Your task to perform on an android device: When is my next meeting? Image 0: 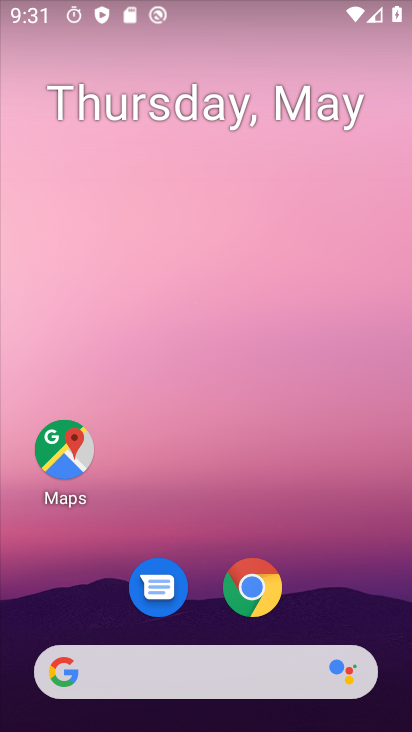
Step 0: drag from (364, 595) to (344, 37)
Your task to perform on an android device: When is my next meeting? Image 1: 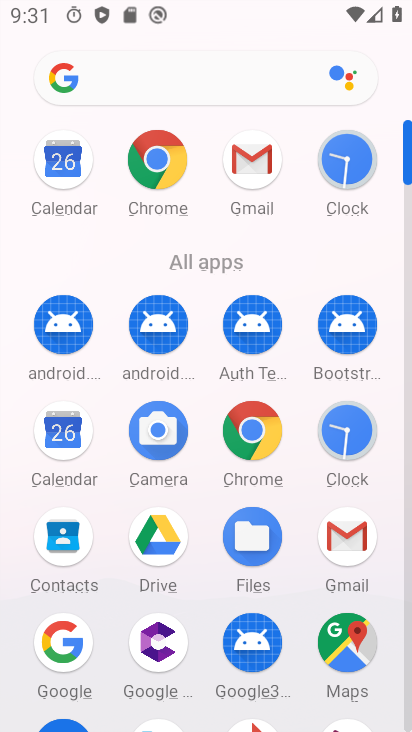
Step 1: click (63, 169)
Your task to perform on an android device: When is my next meeting? Image 2: 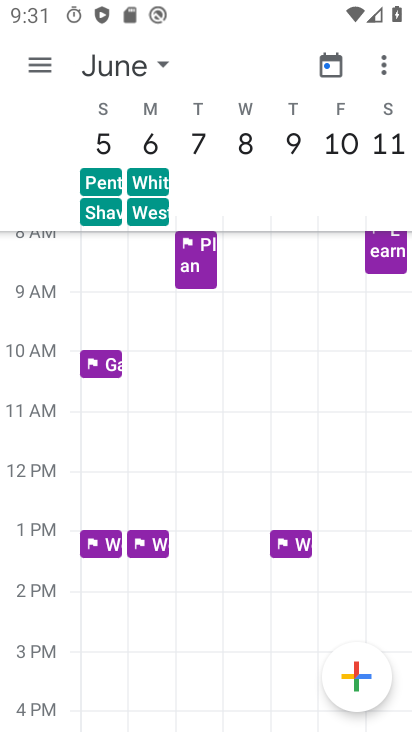
Step 2: click (41, 67)
Your task to perform on an android device: When is my next meeting? Image 3: 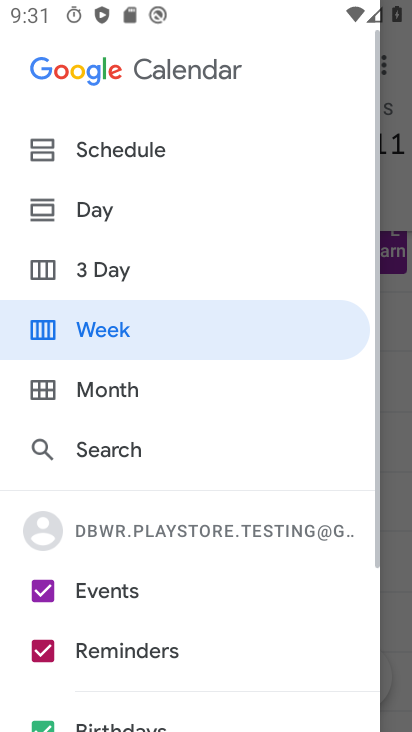
Step 3: click (96, 447)
Your task to perform on an android device: When is my next meeting? Image 4: 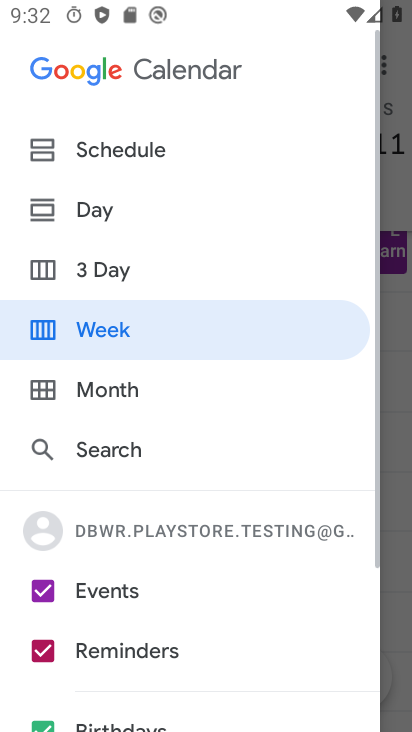
Step 4: click (72, 456)
Your task to perform on an android device: When is my next meeting? Image 5: 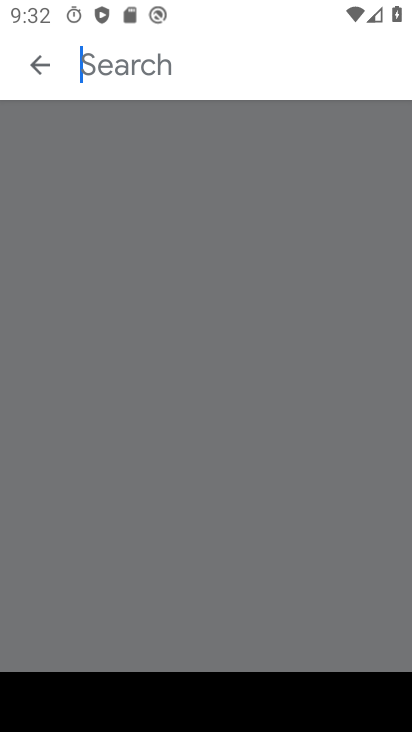
Step 5: click (114, 64)
Your task to perform on an android device: When is my next meeting? Image 6: 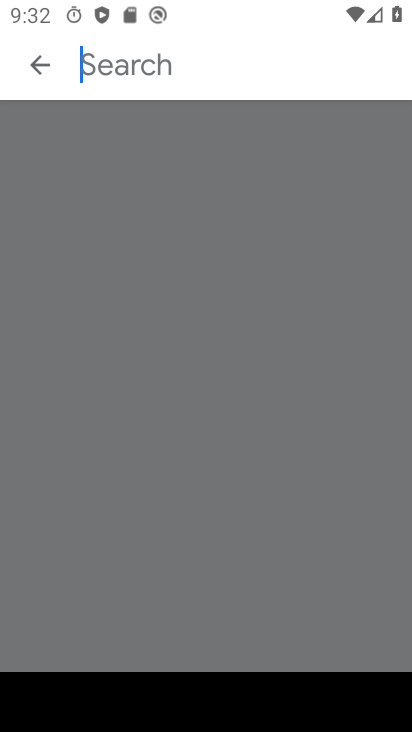
Step 6: type "meet"
Your task to perform on an android device: When is my next meeting? Image 7: 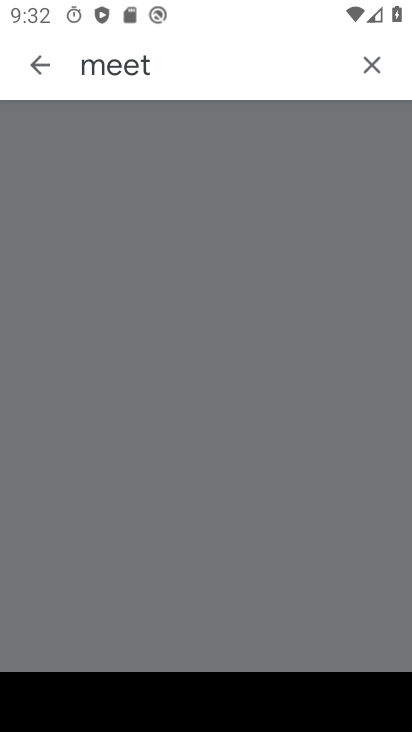
Step 7: type "ing"
Your task to perform on an android device: When is my next meeting? Image 8: 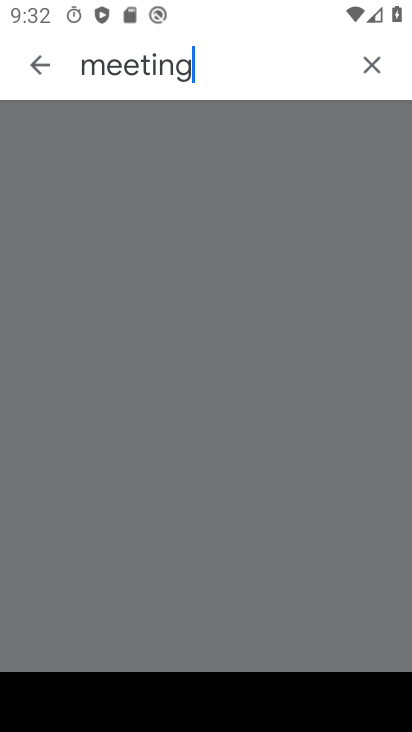
Step 8: click (244, 84)
Your task to perform on an android device: When is my next meeting? Image 9: 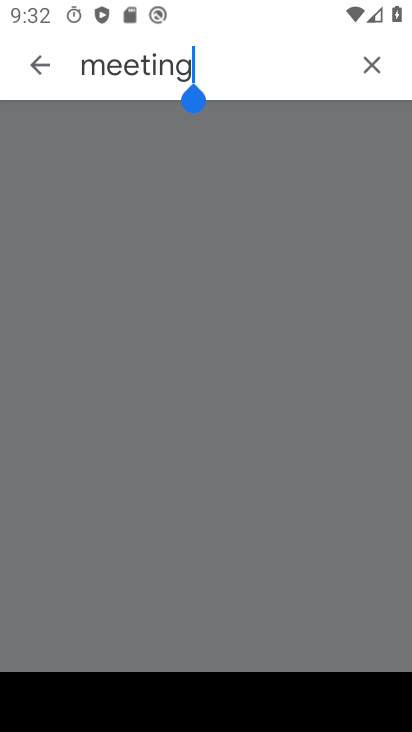
Step 9: click (364, 67)
Your task to perform on an android device: When is my next meeting? Image 10: 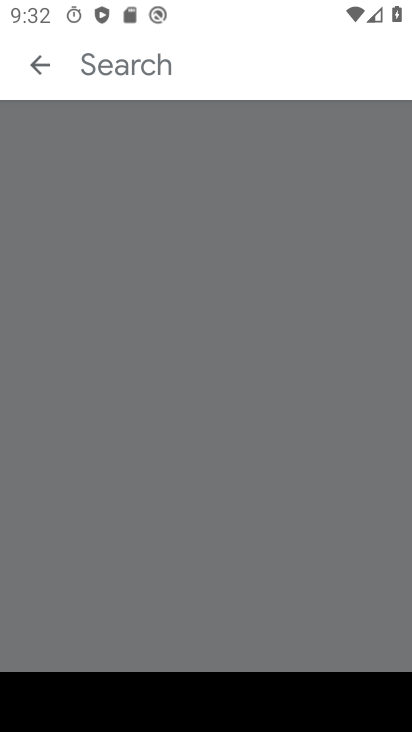
Step 10: click (31, 70)
Your task to perform on an android device: When is my next meeting? Image 11: 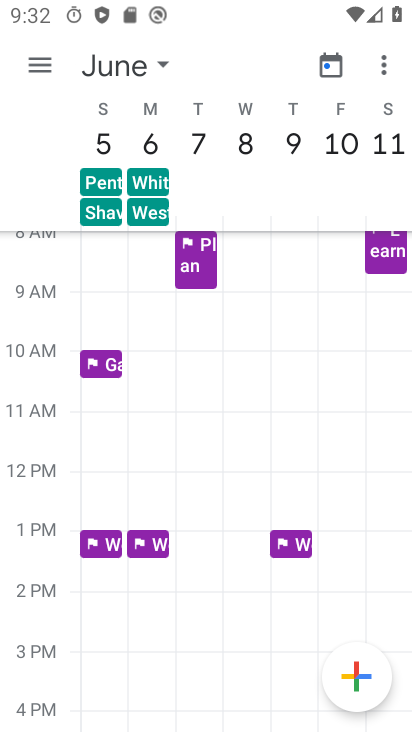
Step 11: click (44, 66)
Your task to perform on an android device: When is my next meeting? Image 12: 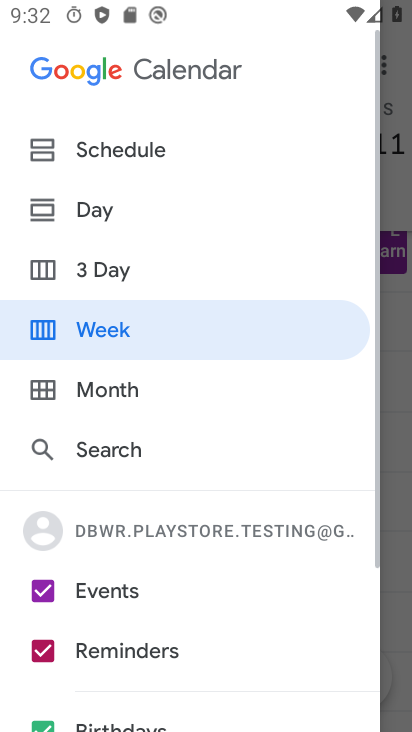
Step 12: click (88, 153)
Your task to perform on an android device: When is my next meeting? Image 13: 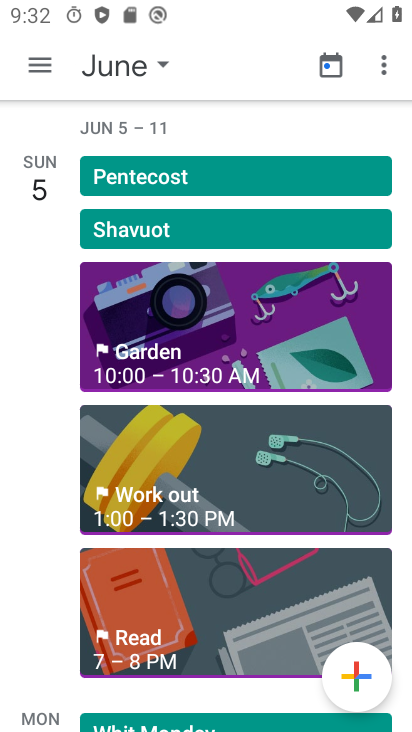
Step 13: click (346, 67)
Your task to perform on an android device: When is my next meeting? Image 14: 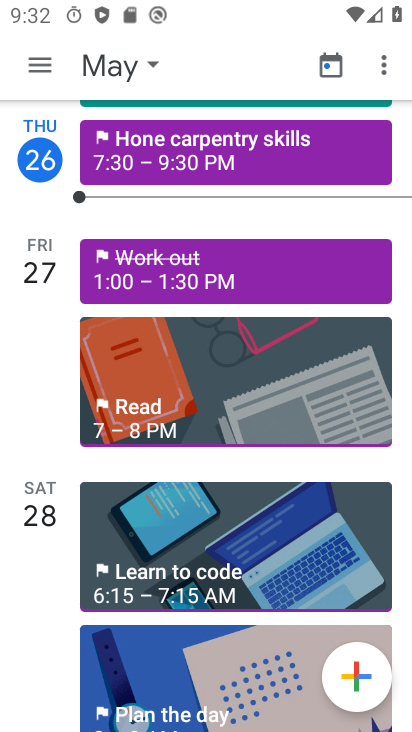
Step 14: drag from (216, 483) to (216, 143)
Your task to perform on an android device: When is my next meeting? Image 15: 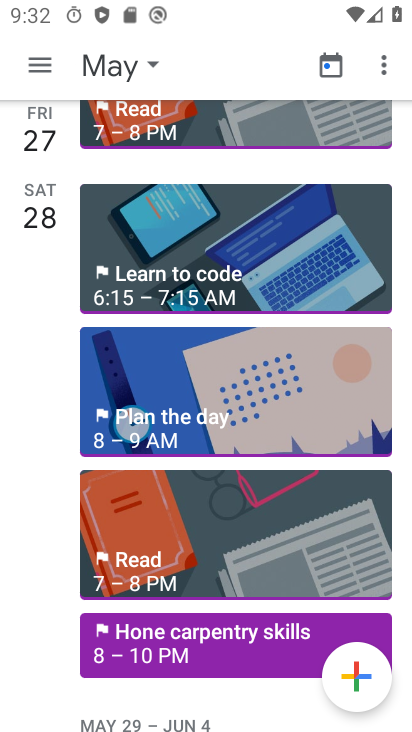
Step 15: drag from (208, 584) to (182, 93)
Your task to perform on an android device: When is my next meeting? Image 16: 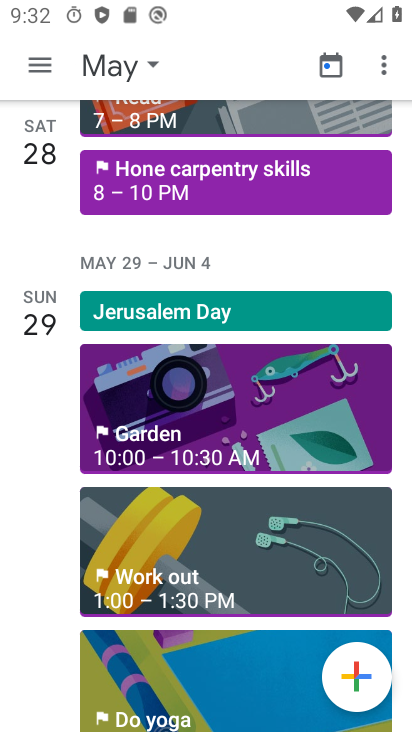
Step 16: drag from (146, 504) to (161, 172)
Your task to perform on an android device: When is my next meeting? Image 17: 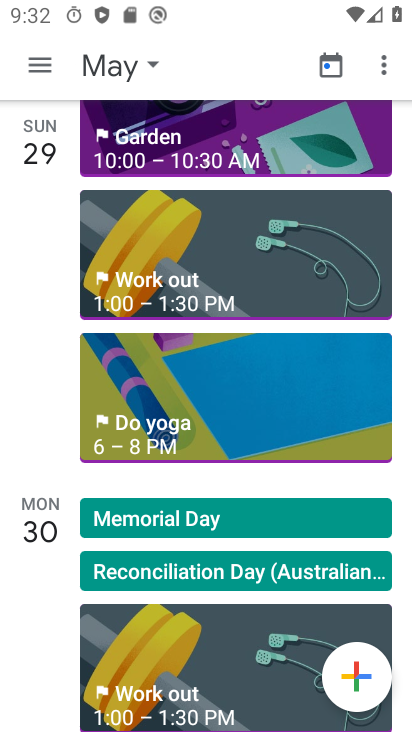
Step 17: drag from (161, 606) to (164, 136)
Your task to perform on an android device: When is my next meeting? Image 18: 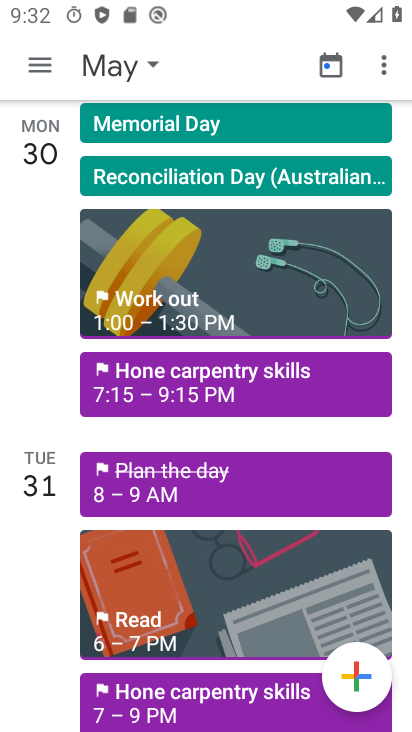
Step 18: drag from (167, 541) to (173, 121)
Your task to perform on an android device: When is my next meeting? Image 19: 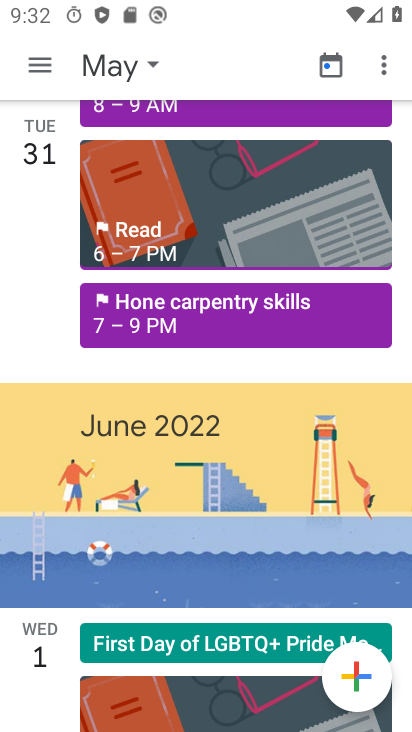
Step 19: drag from (163, 529) to (162, 78)
Your task to perform on an android device: When is my next meeting? Image 20: 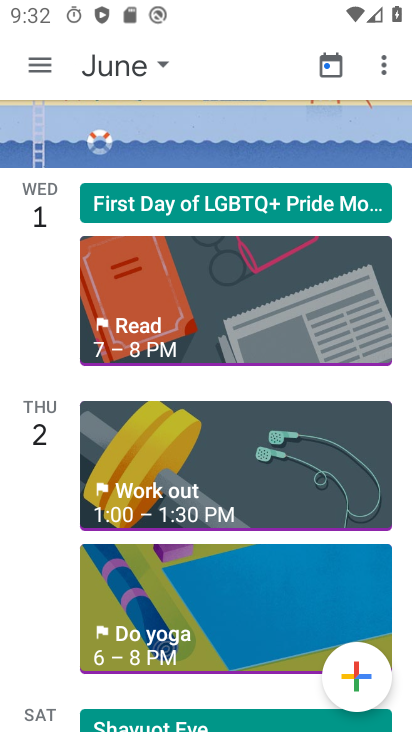
Step 20: drag from (170, 475) to (169, 100)
Your task to perform on an android device: When is my next meeting? Image 21: 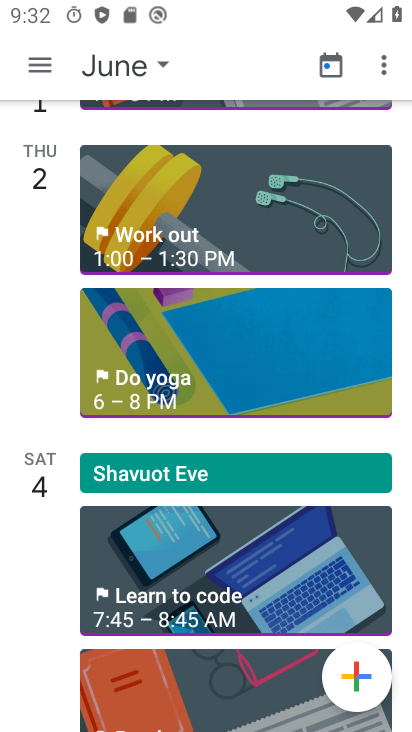
Step 21: drag from (160, 541) to (157, 137)
Your task to perform on an android device: When is my next meeting? Image 22: 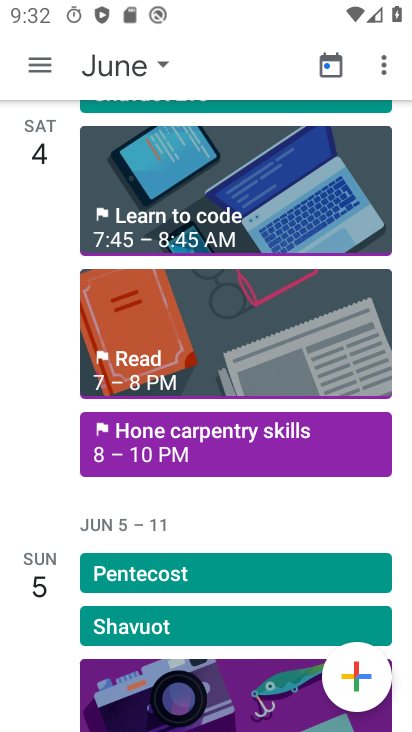
Step 22: drag from (149, 564) to (151, 221)
Your task to perform on an android device: When is my next meeting? Image 23: 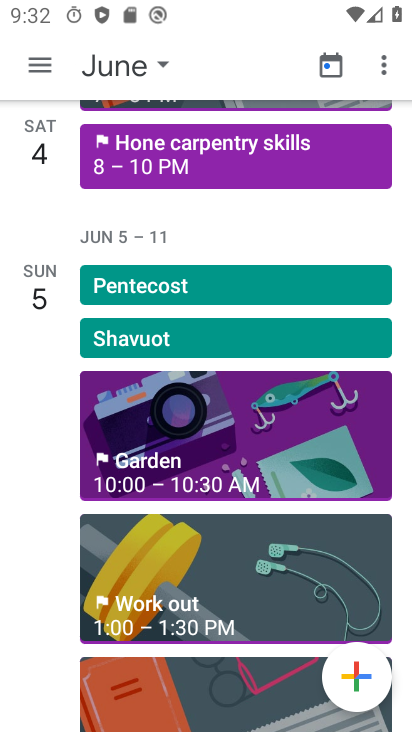
Step 23: drag from (168, 552) to (159, 162)
Your task to perform on an android device: When is my next meeting? Image 24: 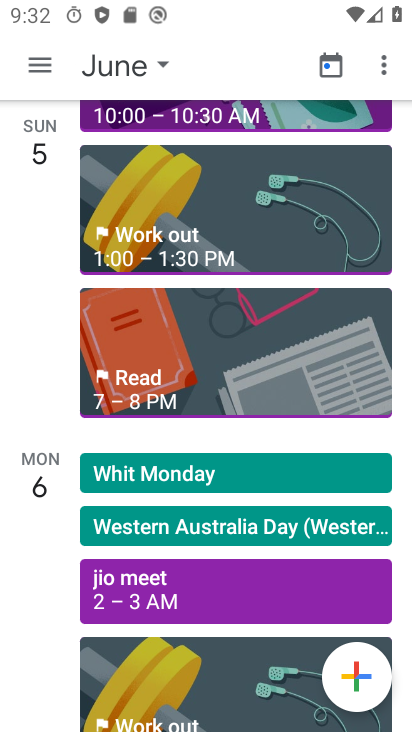
Step 24: drag from (148, 540) to (148, 172)
Your task to perform on an android device: When is my next meeting? Image 25: 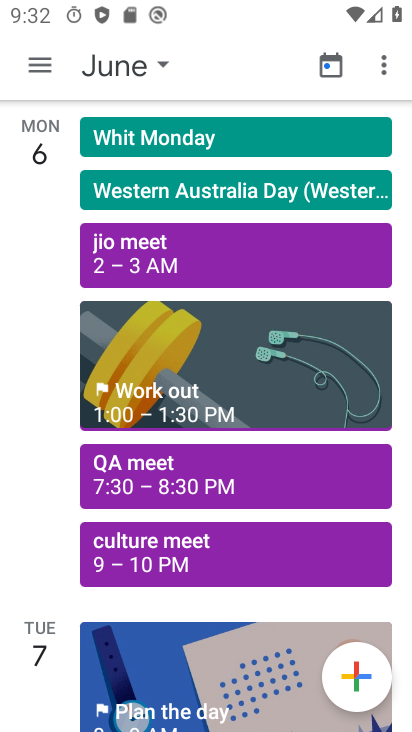
Step 25: click (144, 256)
Your task to perform on an android device: When is my next meeting? Image 26: 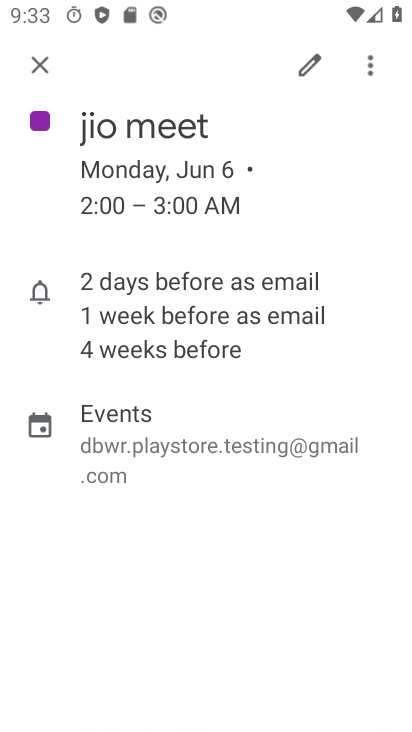
Step 26: task complete